Your task to perform on an android device: find snoozed emails in the gmail app Image 0: 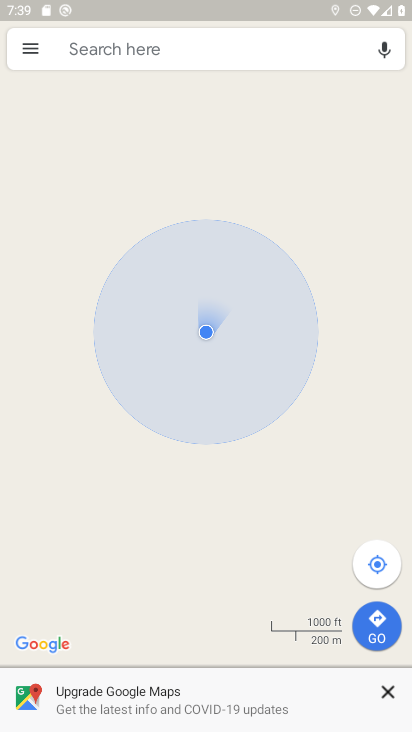
Step 0: press home button
Your task to perform on an android device: find snoozed emails in the gmail app Image 1: 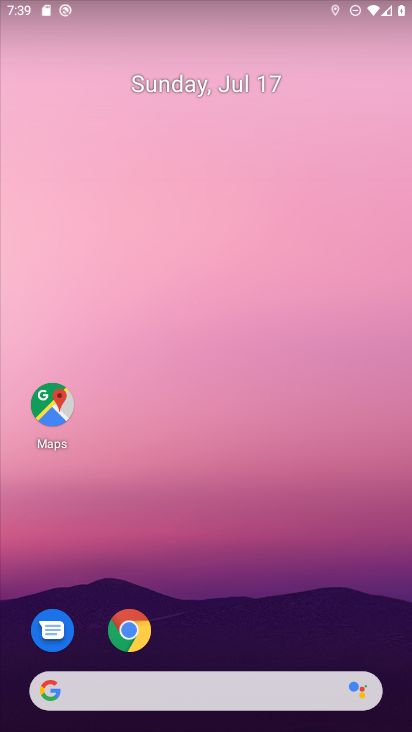
Step 1: drag from (386, 629) to (232, 51)
Your task to perform on an android device: find snoozed emails in the gmail app Image 2: 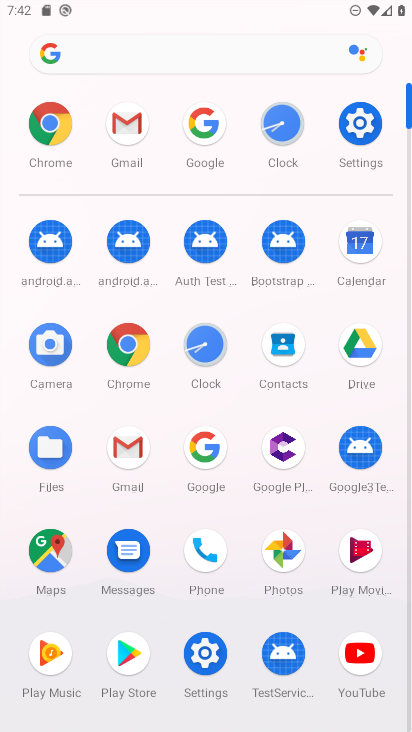
Step 2: click (125, 455)
Your task to perform on an android device: find snoozed emails in the gmail app Image 3: 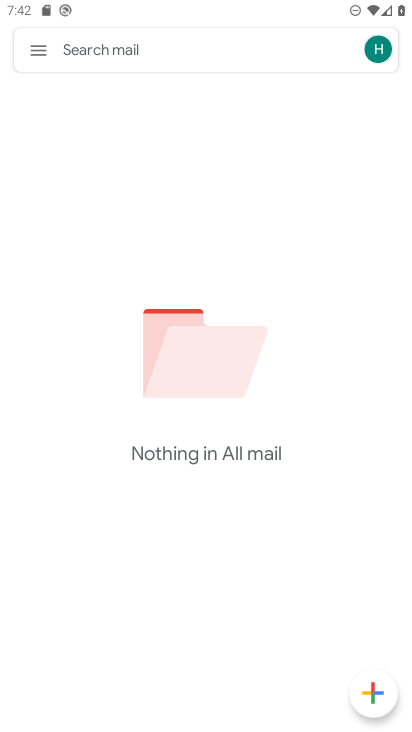
Step 3: click (47, 44)
Your task to perform on an android device: find snoozed emails in the gmail app Image 4: 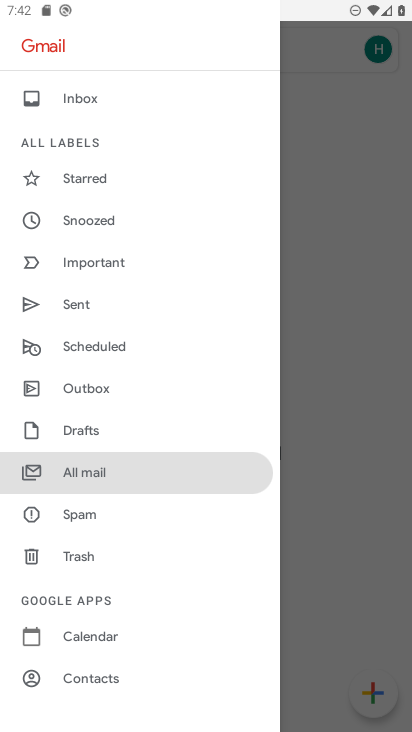
Step 4: click (99, 227)
Your task to perform on an android device: find snoozed emails in the gmail app Image 5: 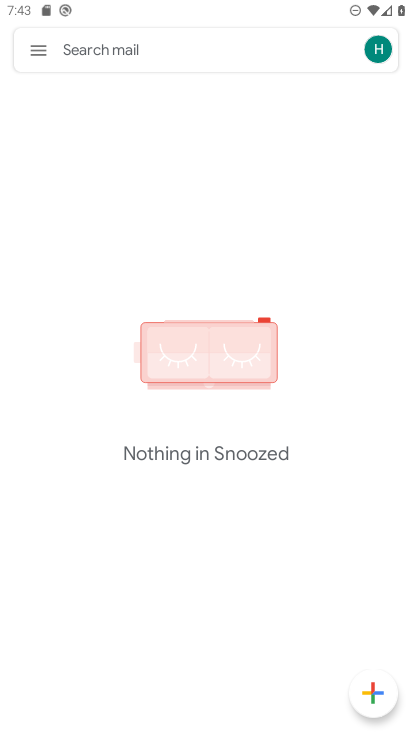
Step 5: task complete